Your task to perform on an android device: Open the calendar app, open the side menu, and click the "Day" option Image 0: 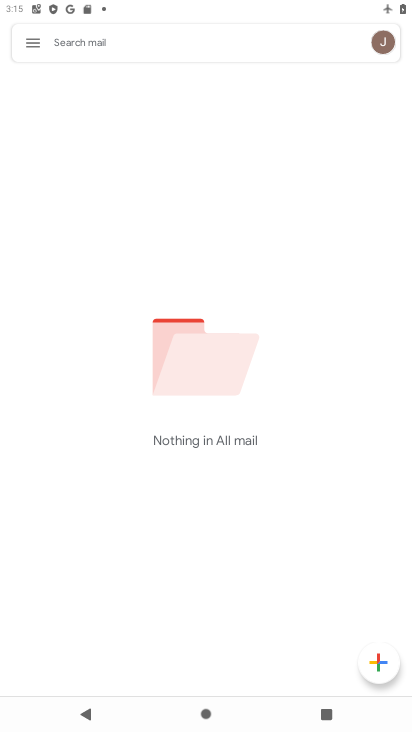
Step 0: press home button
Your task to perform on an android device: Open the calendar app, open the side menu, and click the "Day" option Image 1: 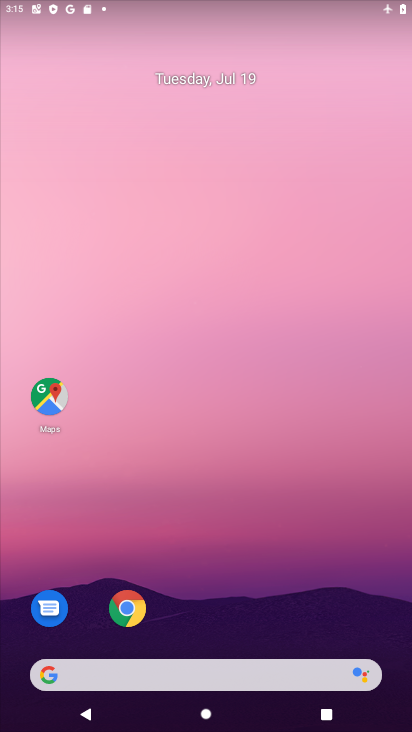
Step 1: drag from (213, 517) to (199, 188)
Your task to perform on an android device: Open the calendar app, open the side menu, and click the "Day" option Image 2: 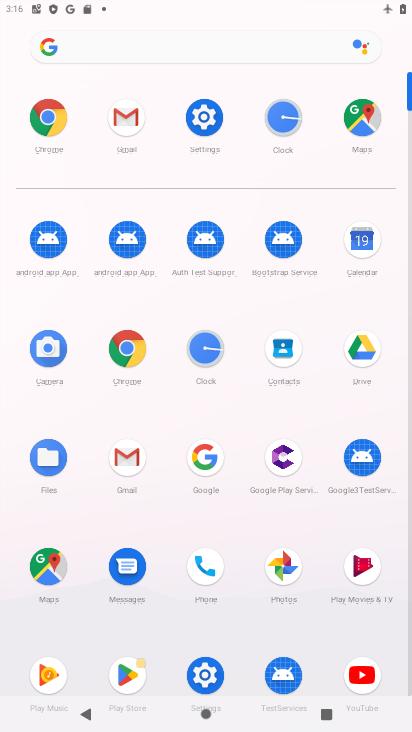
Step 2: click (361, 239)
Your task to perform on an android device: Open the calendar app, open the side menu, and click the "Day" option Image 3: 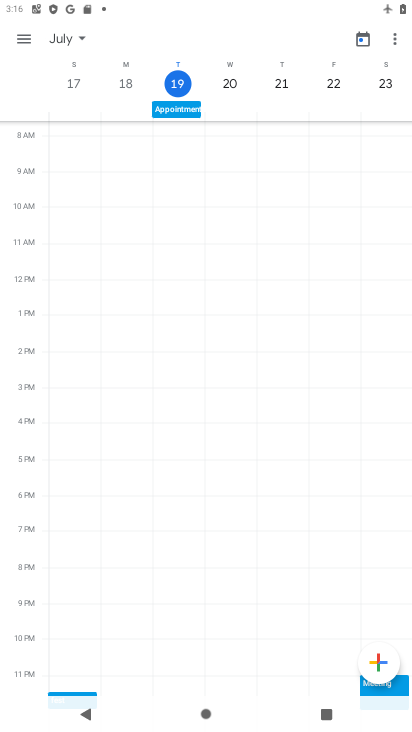
Step 3: click (29, 40)
Your task to perform on an android device: Open the calendar app, open the side menu, and click the "Day" option Image 4: 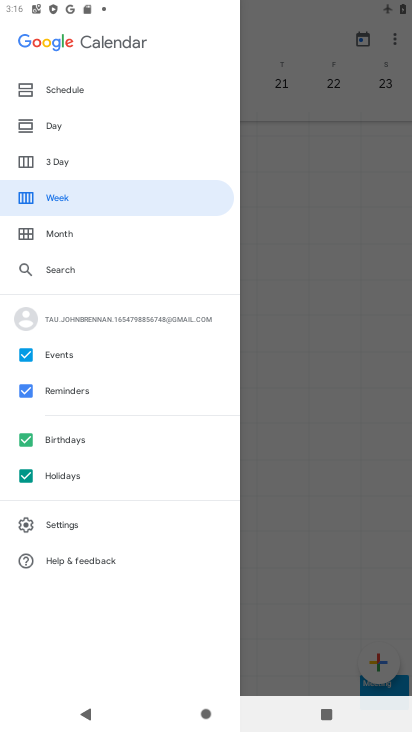
Step 4: click (49, 116)
Your task to perform on an android device: Open the calendar app, open the side menu, and click the "Day" option Image 5: 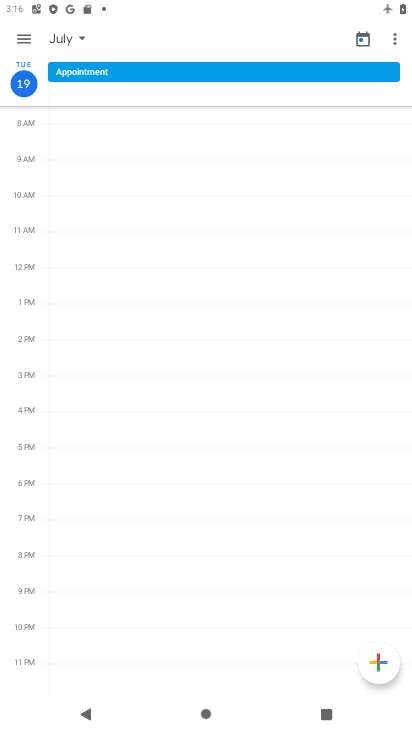
Step 5: task complete